Your task to perform on an android device: open app "Cash App" (install if not already installed) Image 0: 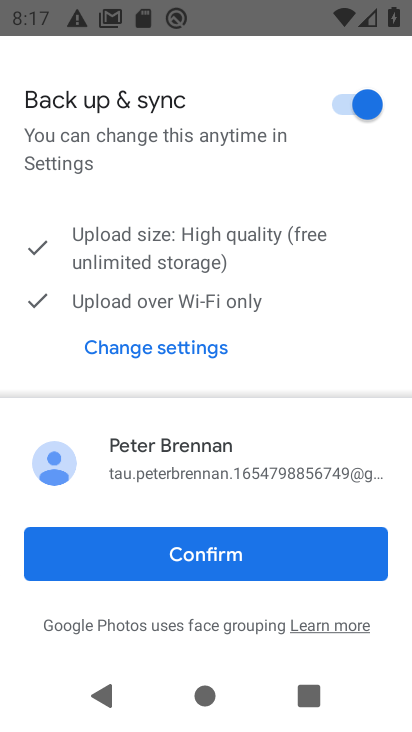
Step 0: press home button
Your task to perform on an android device: open app "Cash App" (install if not already installed) Image 1: 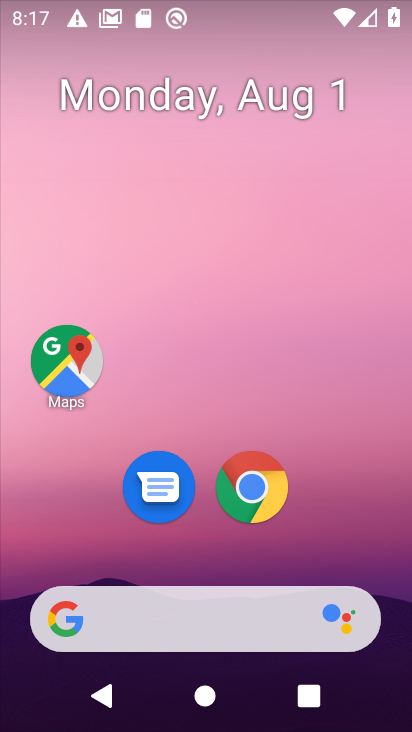
Step 1: drag from (363, 516) to (369, 58)
Your task to perform on an android device: open app "Cash App" (install if not already installed) Image 2: 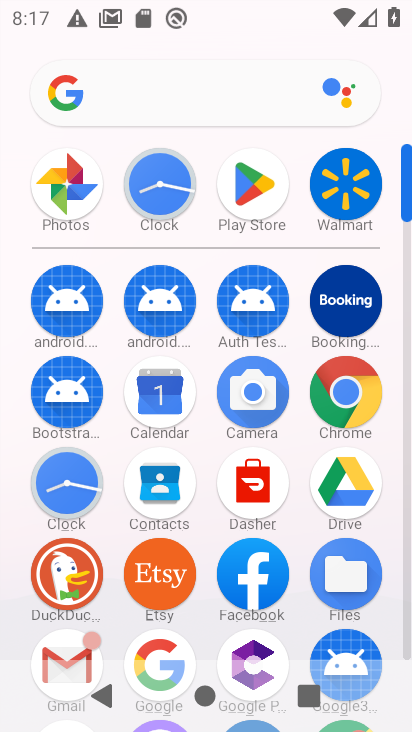
Step 2: click (244, 201)
Your task to perform on an android device: open app "Cash App" (install if not already installed) Image 3: 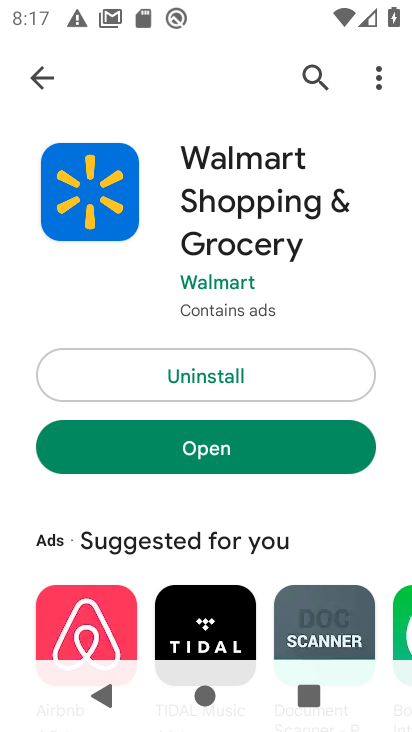
Step 3: click (316, 75)
Your task to perform on an android device: open app "Cash App" (install if not already installed) Image 4: 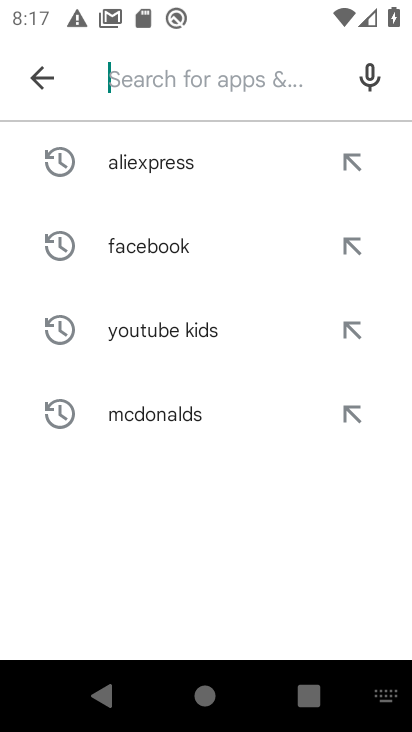
Step 4: type "cash app"
Your task to perform on an android device: open app "Cash App" (install if not already installed) Image 5: 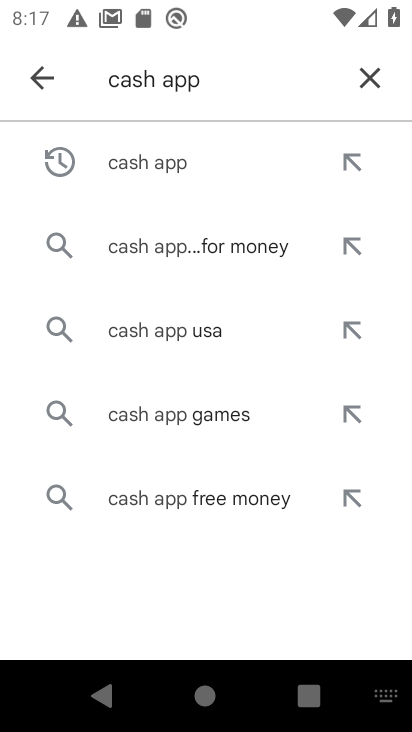
Step 5: click (202, 171)
Your task to perform on an android device: open app "Cash App" (install if not already installed) Image 6: 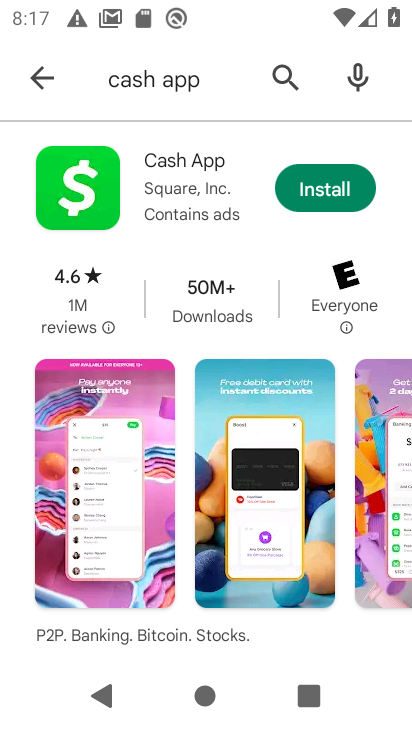
Step 6: click (304, 192)
Your task to perform on an android device: open app "Cash App" (install if not already installed) Image 7: 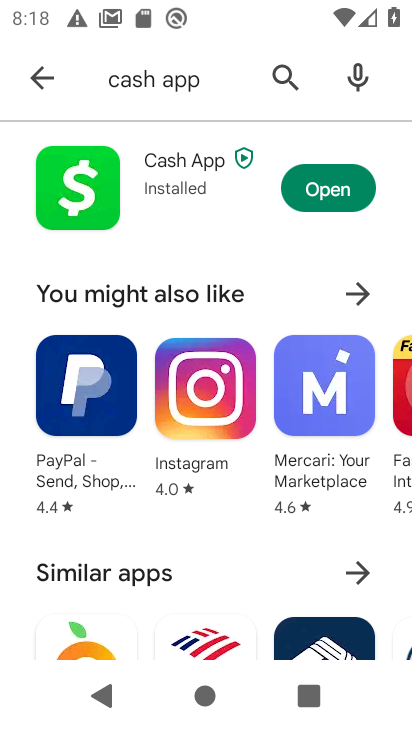
Step 7: click (328, 194)
Your task to perform on an android device: open app "Cash App" (install if not already installed) Image 8: 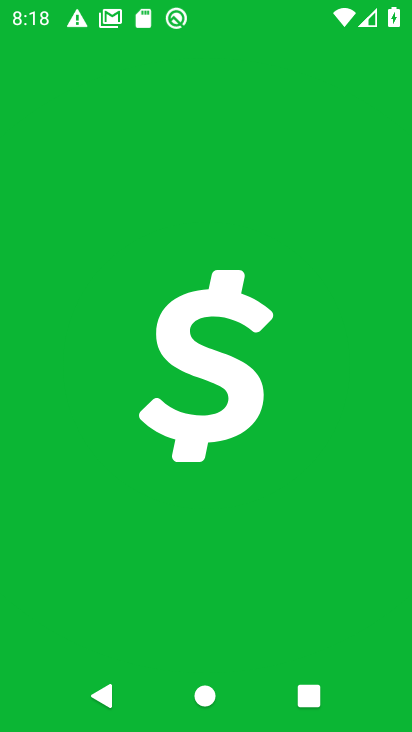
Step 8: task complete